Your task to perform on an android device: turn notification dots on Image 0: 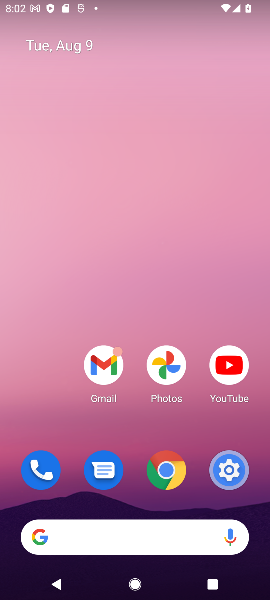
Step 0: drag from (130, 492) to (149, 103)
Your task to perform on an android device: turn notification dots on Image 1: 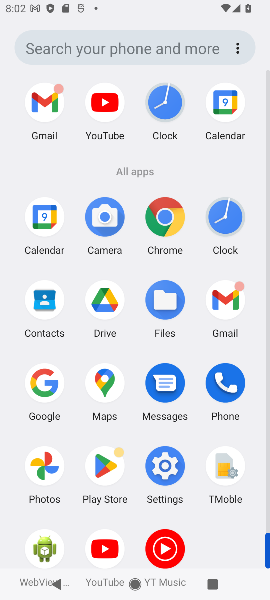
Step 1: click (167, 477)
Your task to perform on an android device: turn notification dots on Image 2: 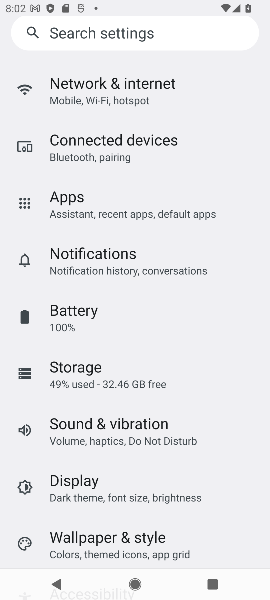
Step 2: click (120, 269)
Your task to perform on an android device: turn notification dots on Image 3: 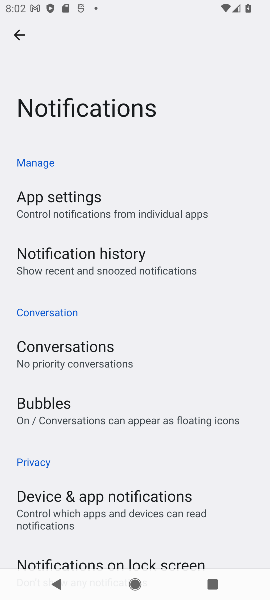
Step 3: task complete